Your task to perform on an android device: Open privacy settings Image 0: 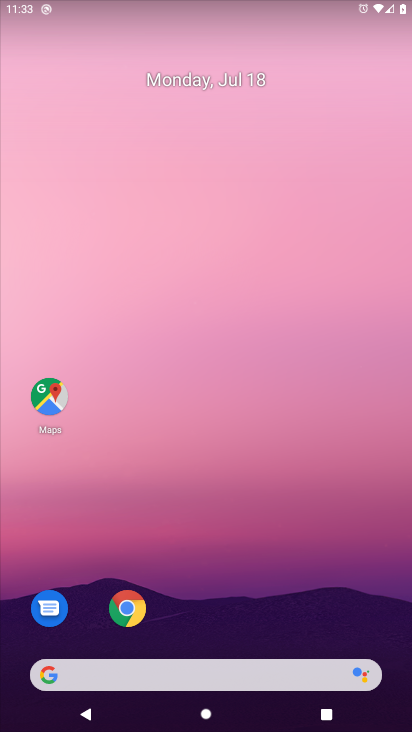
Step 0: drag from (19, 675) to (124, 296)
Your task to perform on an android device: Open privacy settings Image 1: 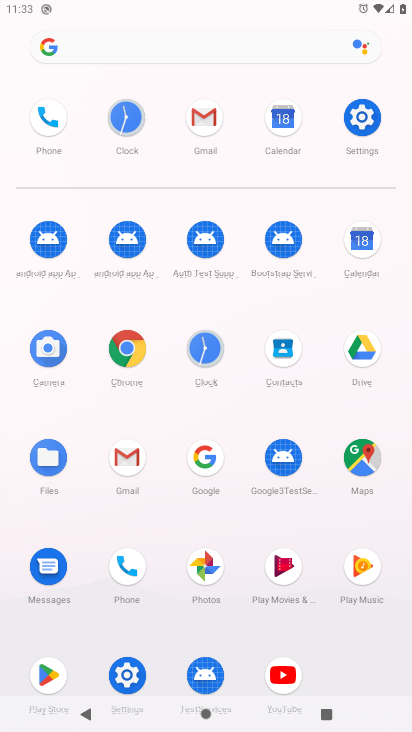
Step 1: click (128, 663)
Your task to perform on an android device: Open privacy settings Image 2: 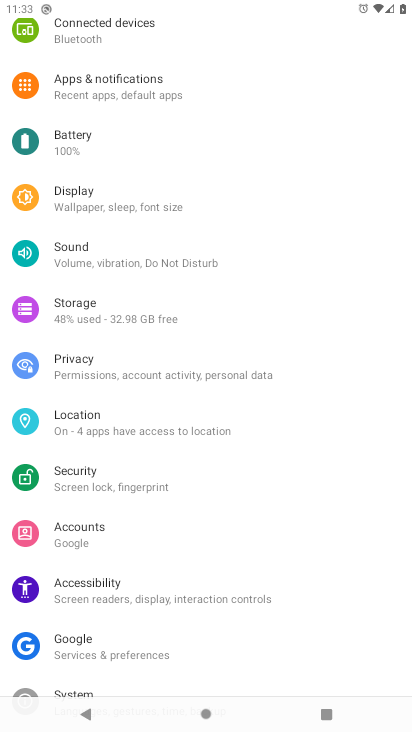
Step 2: drag from (194, 111) to (211, 402)
Your task to perform on an android device: Open privacy settings Image 3: 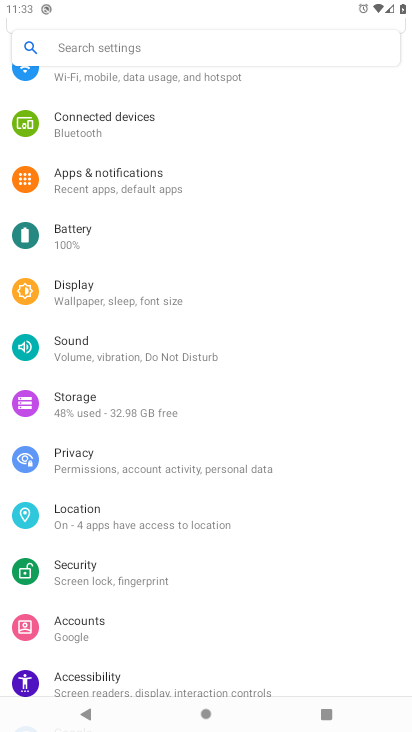
Step 3: click (77, 457)
Your task to perform on an android device: Open privacy settings Image 4: 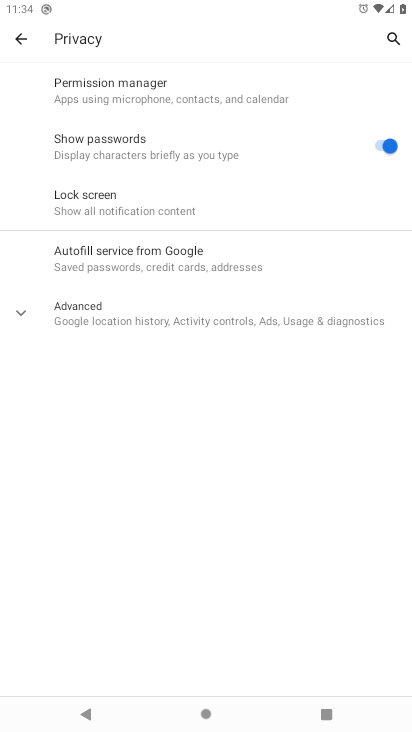
Step 4: task complete